Your task to perform on an android device: Open Google Maps Image 0: 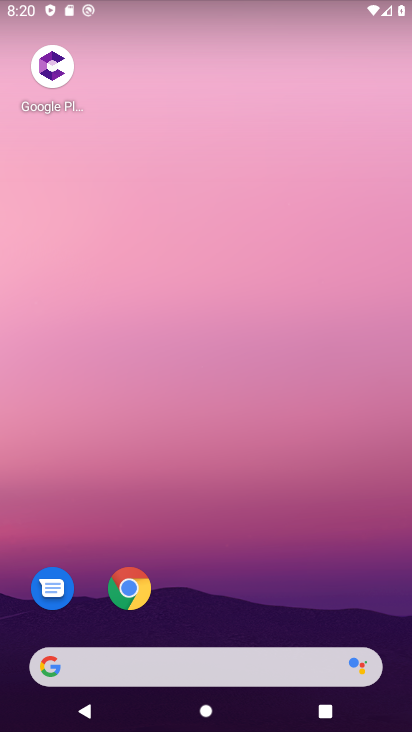
Step 0: press home button
Your task to perform on an android device: Open Google Maps Image 1: 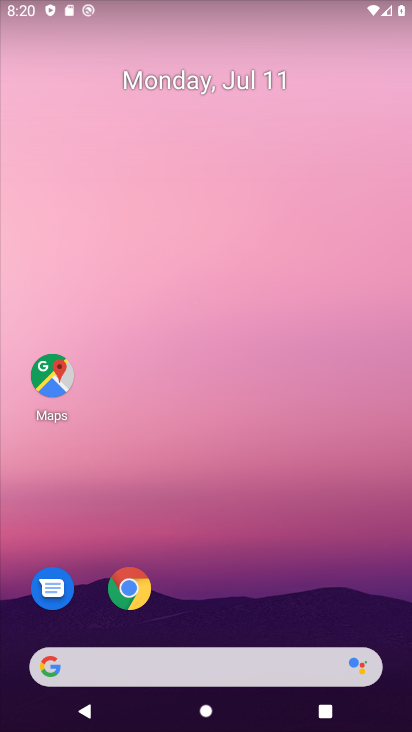
Step 1: drag from (223, 250) to (208, 155)
Your task to perform on an android device: Open Google Maps Image 2: 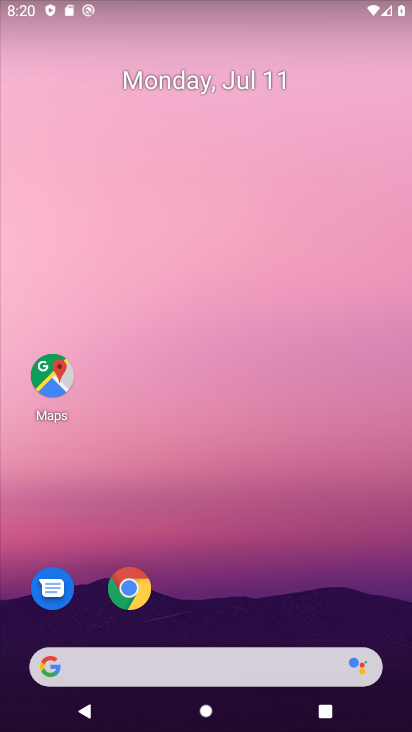
Step 2: click (43, 374)
Your task to perform on an android device: Open Google Maps Image 3: 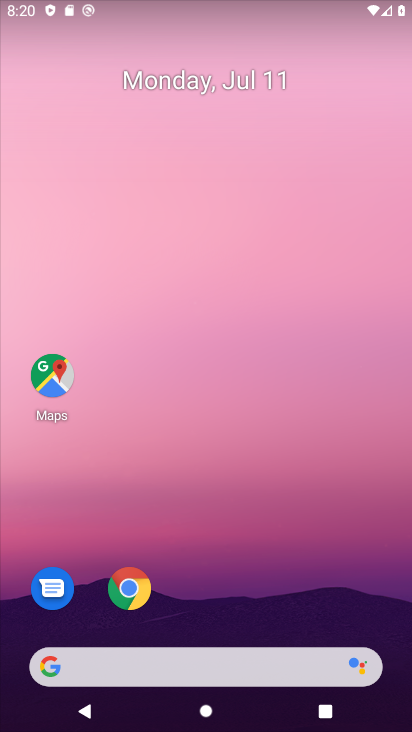
Step 3: click (51, 378)
Your task to perform on an android device: Open Google Maps Image 4: 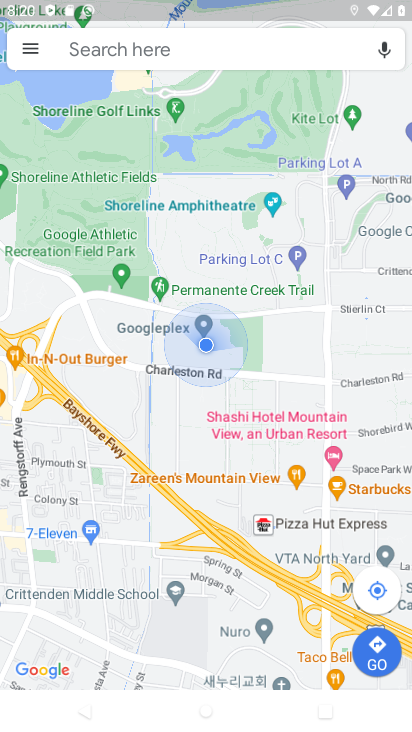
Step 4: task complete